Your task to perform on an android device: Go to internet settings Image 0: 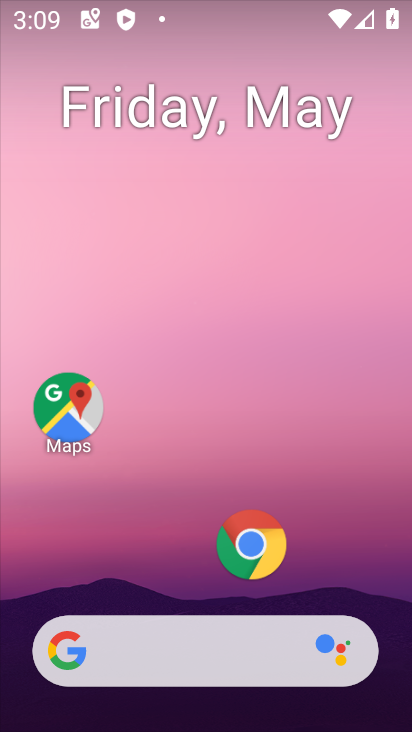
Step 0: drag from (187, 552) to (187, 166)
Your task to perform on an android device: Go to internet settings Image 1: 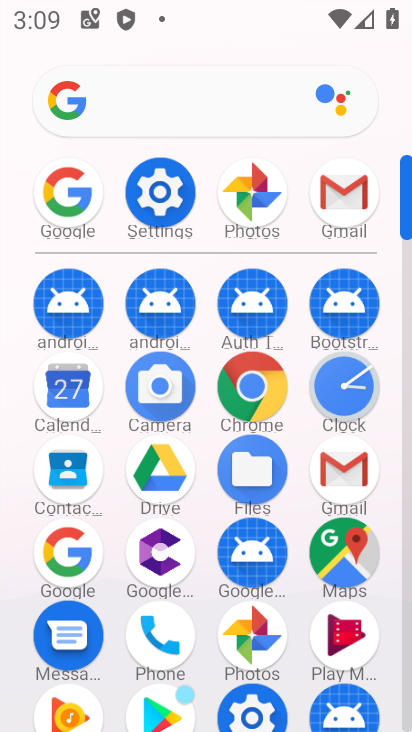
Step 1: click (180, 201)
Your task to perform on an android device: Go to internet settings Image 2: 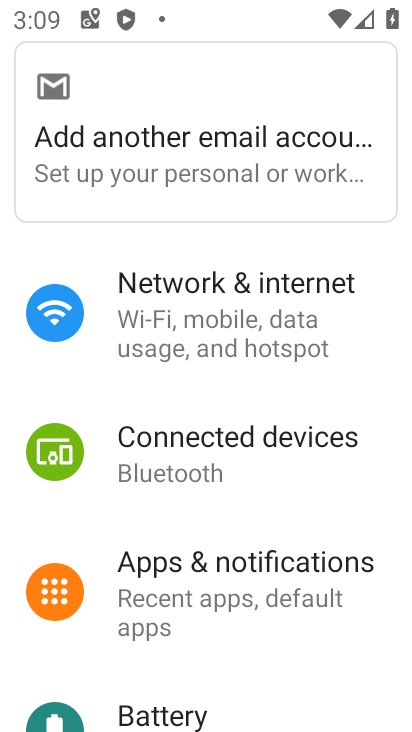
Step 2: click (183, 316)
Your task to perform on an android device: Go to internet settings Image 3: 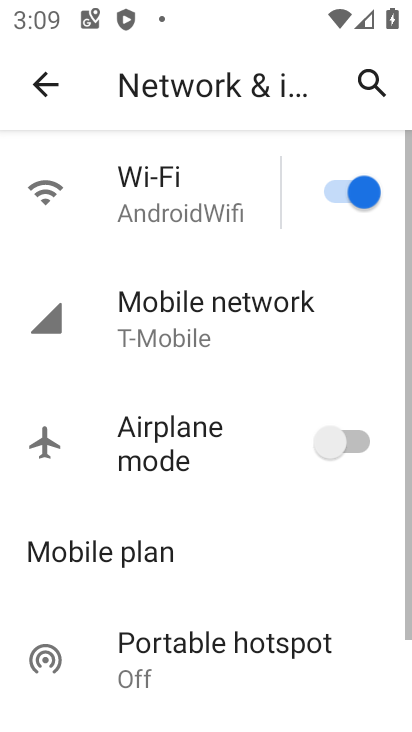
Step 3: task complete